Your task to perform on an android device: find which apps use the phone's location Image 0: 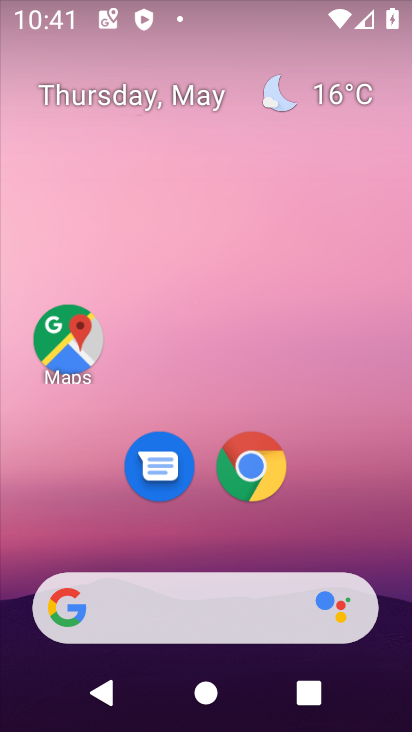
Step 0: drag from (317, 478) to (330, 126)
Your task to perform on an android device: find which apps use the phone's location Image 1: 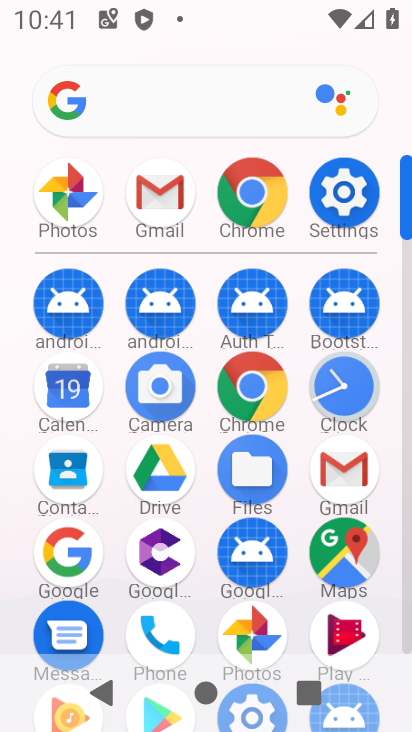
Step 1: click (343, 171)
Your task to perform on an android device: find which apps use the phone's location Image 2: 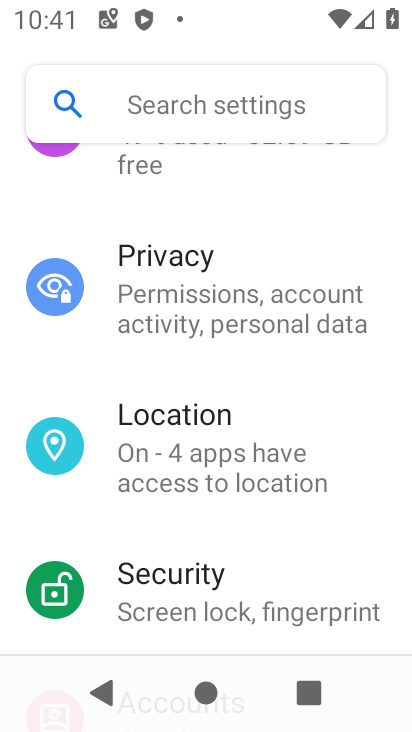
Step 2: drag from (256, 530) to (313, 141)
Your task to perform on an android device: find which apps use the phone's location Image 3: 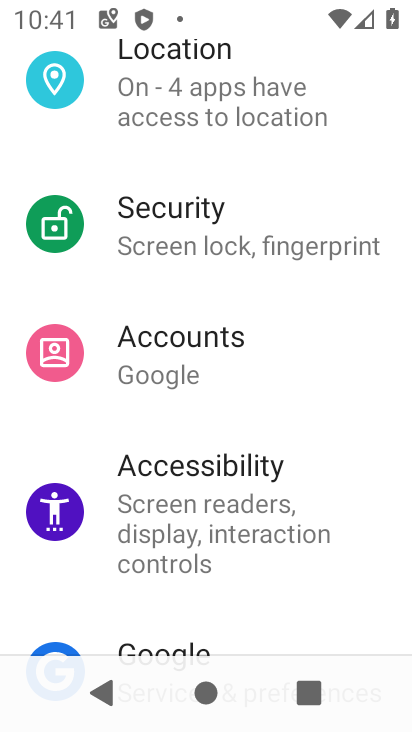
Step 3: drag from (250, 512) to (308, 158)
Your task to perform on an android device: find which apps use the phone's location Image 4: 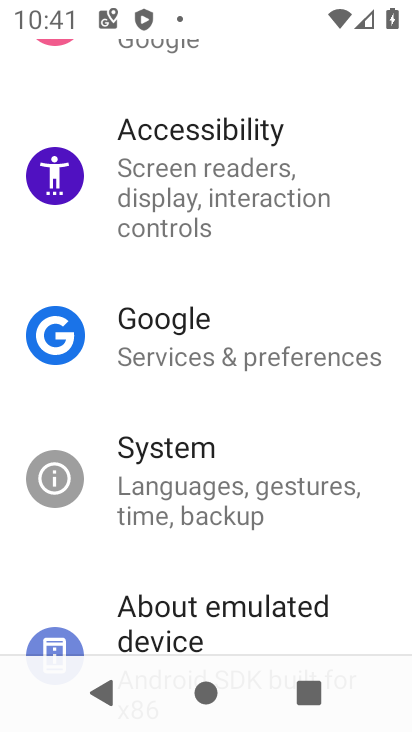
Step 4: drag from (231, 503) to (316, 220)
Your task to perform on an android device: find which apps use the phone's location Image 5: 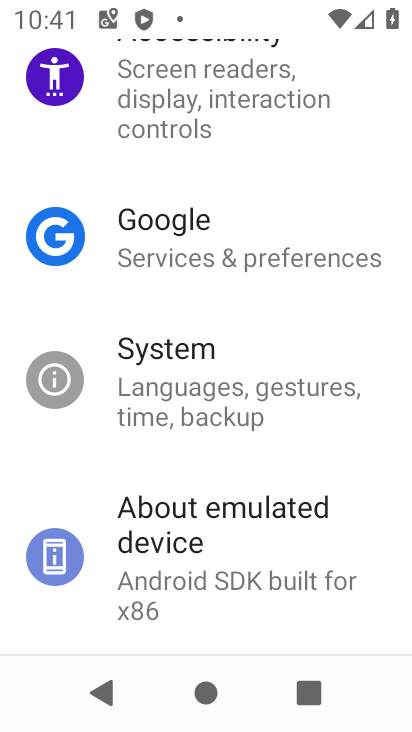
Step 5: drag from (216, 189) to (221, 342)
Your task to perform on an android device: find which apps use the phone's location Image 6: 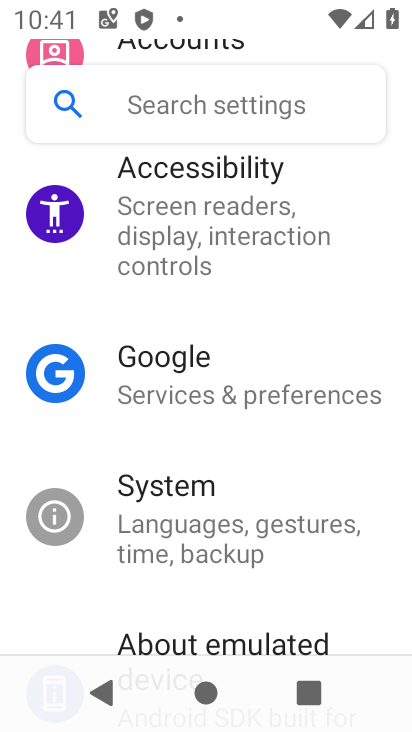
Step 6: click (209, 197)
Your task to perform on an android device: find which apps use the phone's location Image 7: 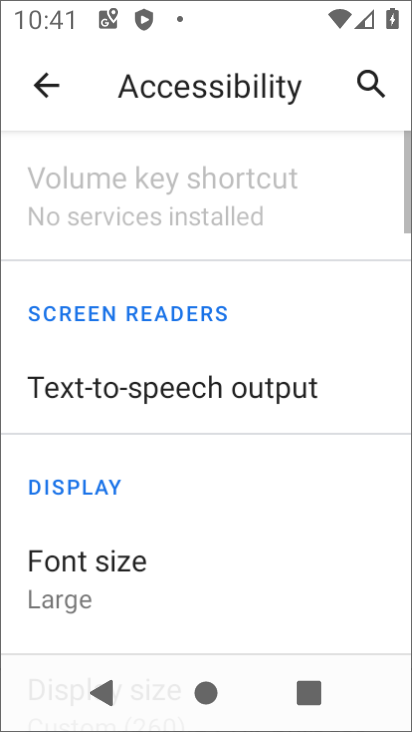
Step 7: drag from (209, 241) to (190, 299)
Your task to perform on an android device: find which apps use the phone's location Image 8: 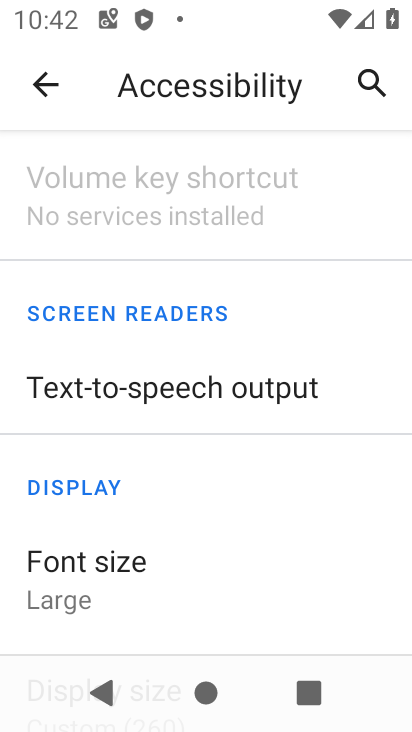
Step 8: click (32, 77)
Your task to perform on an android device: find which apps use the phone's location Image 9: 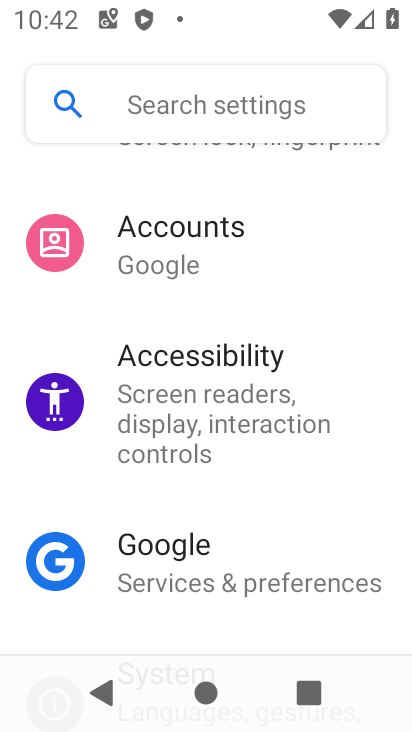
Step 9: click (272, 222)
Your task to perform on an android device: find which apps use the phone's location Image 10: 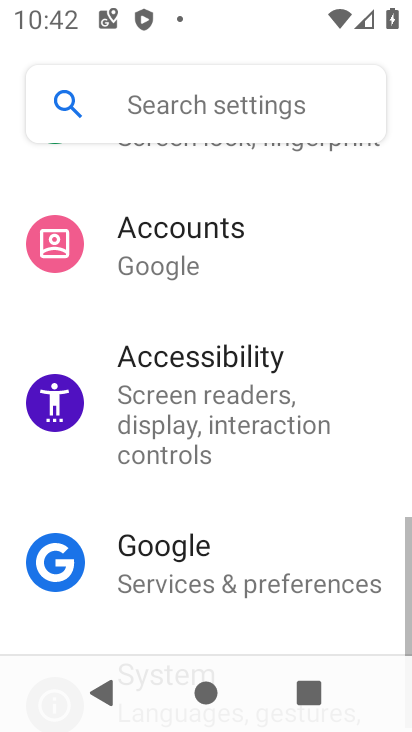
Step 10: drag from (263, 312) to (232, 458)
Your task to perform on an android device: find which apps use the phone's location Image 11: 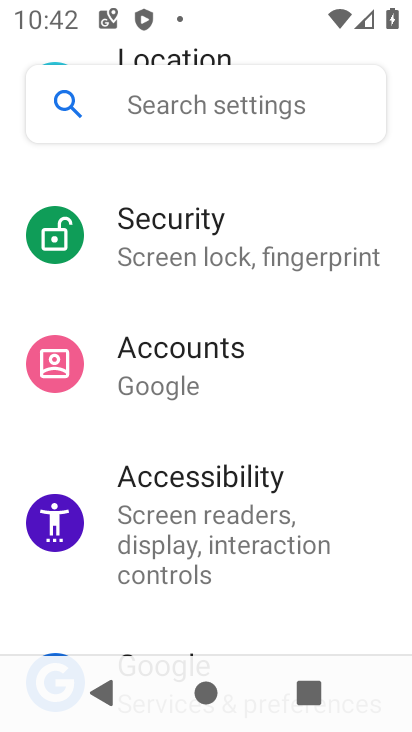
Step 11: drag from (164, 214) to (180, 542)
Your task to perform on an android device: find which apps use the phone's location Image 12: 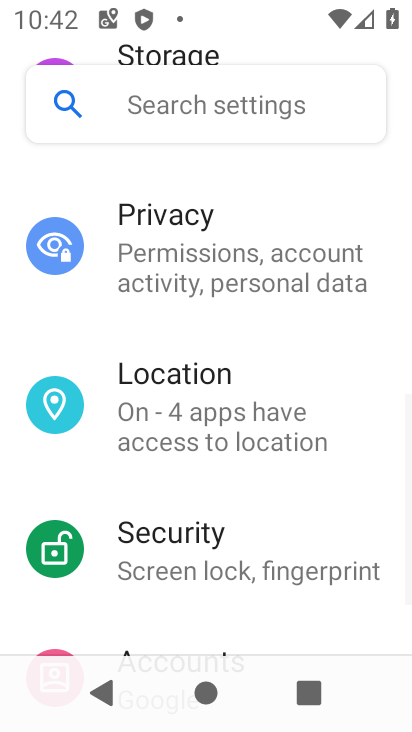
Step 12: click (152, 386)
Your task to perform on an android device: find which apps use the phone's location Image 13: 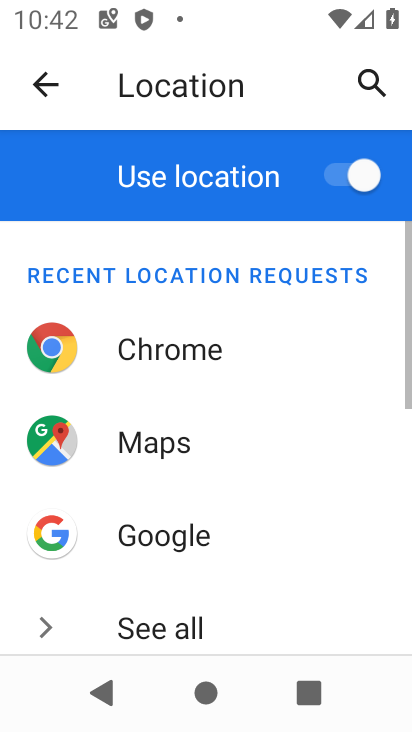
Step 13: task complete